Your task to perform on an android device: check android version Image 0: 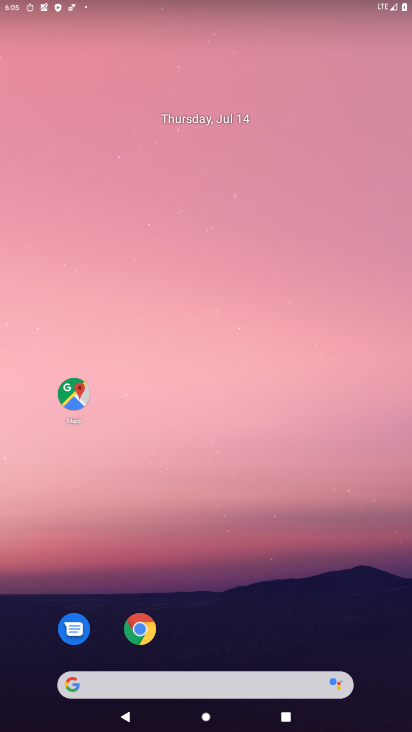
Step 0: drag from (295, 671) to (330, 100)
Your task to perform on an android device: check android version Image 1: 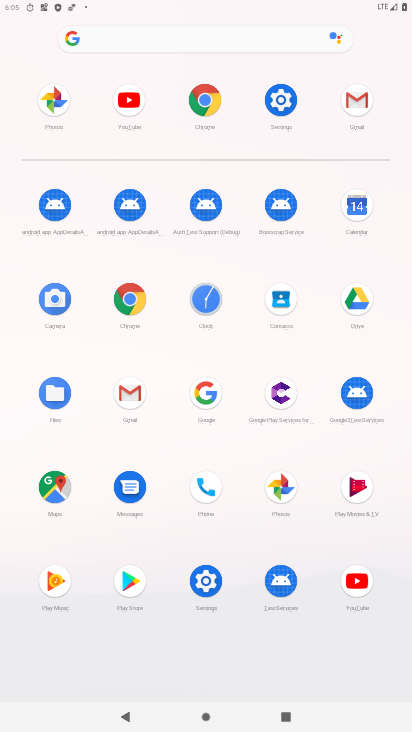
Step 1: click (277, 101)
Your task to perform on an android device: check android version Image 2: 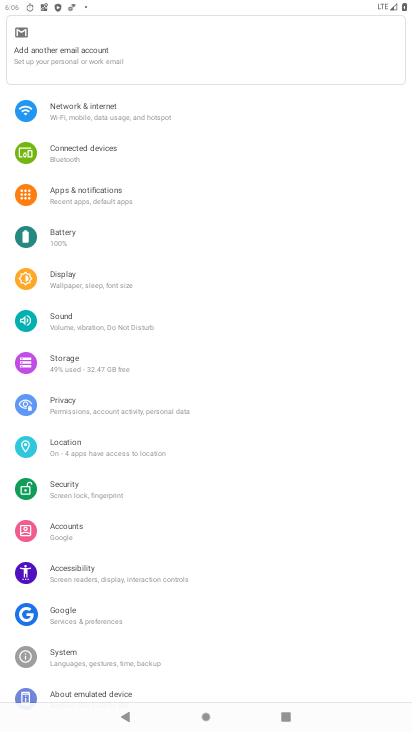
Step 2: drag from (86, 624) to (128, 67)
Your task to perform on an android device: check android version Image 3: 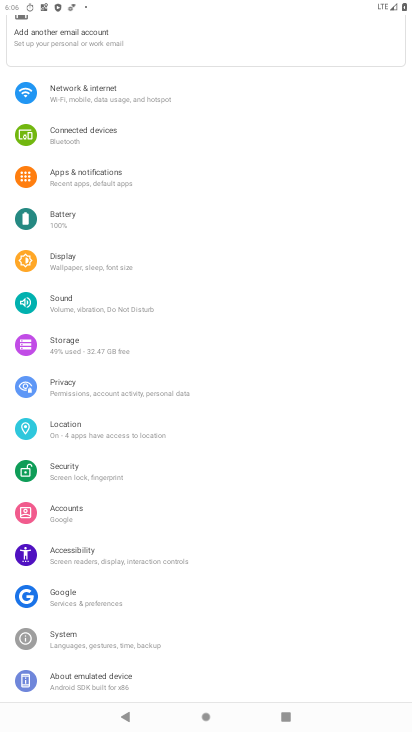
Step 3: click (45, 686)
Your task to perform on an android device: check android version Image 4: 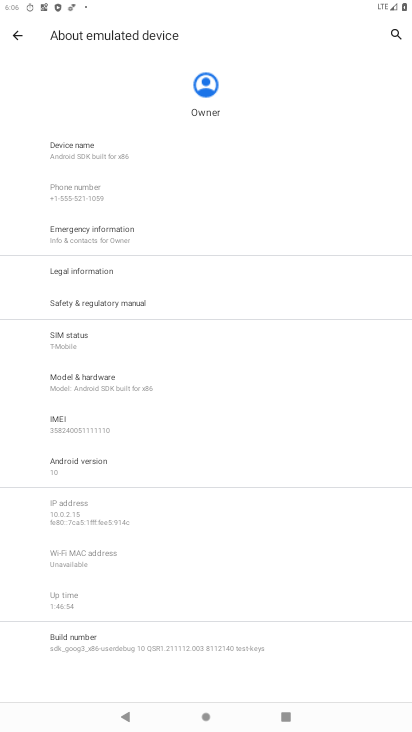
Step 4: click (99, 461)
Your task to perform on an android device: check android version Image 5: 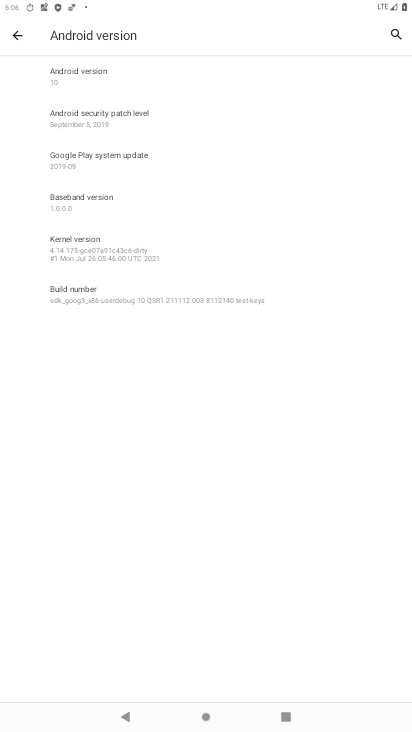
Step 5: task complete